Your task to perform on an android device: Open display settings Image 0: 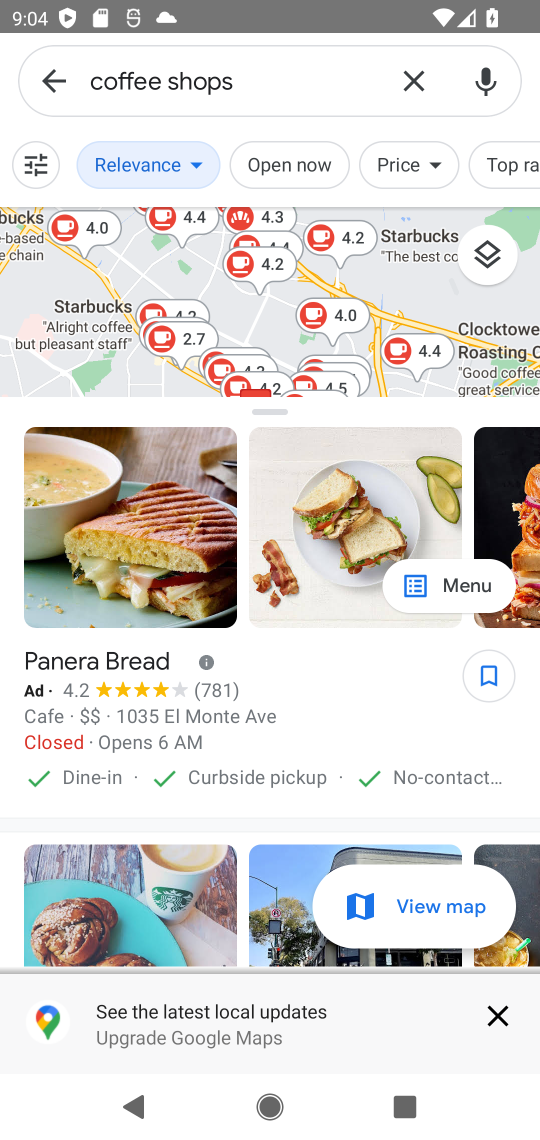
Step 0: press home button
Your task to perform on an android device: Open display settings Image 1: 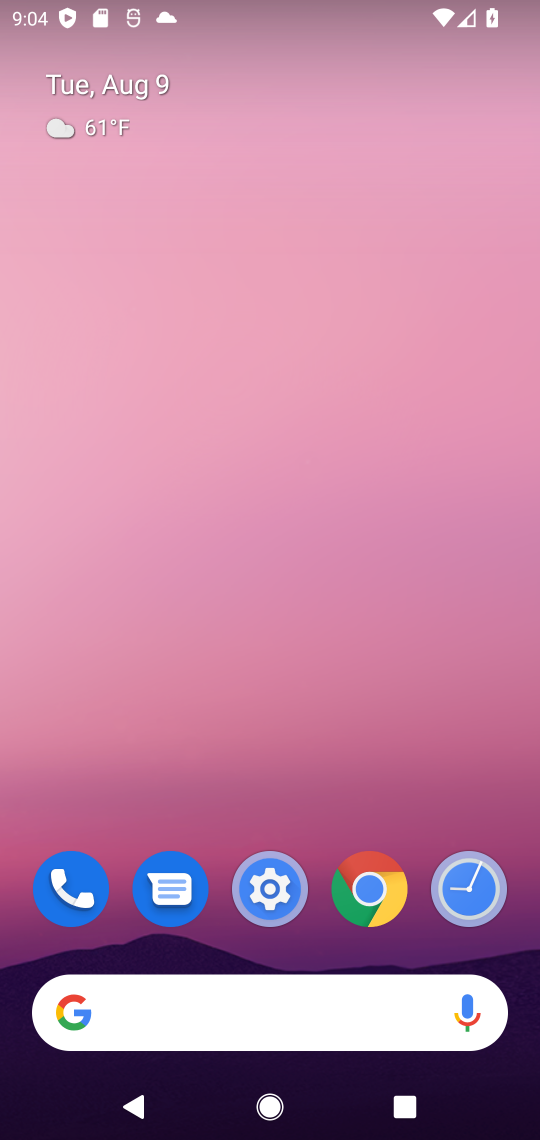
Step 1: drag from (337, 973) to (395, 237)
Your task to perform on an android device: Open display settings Image 2: 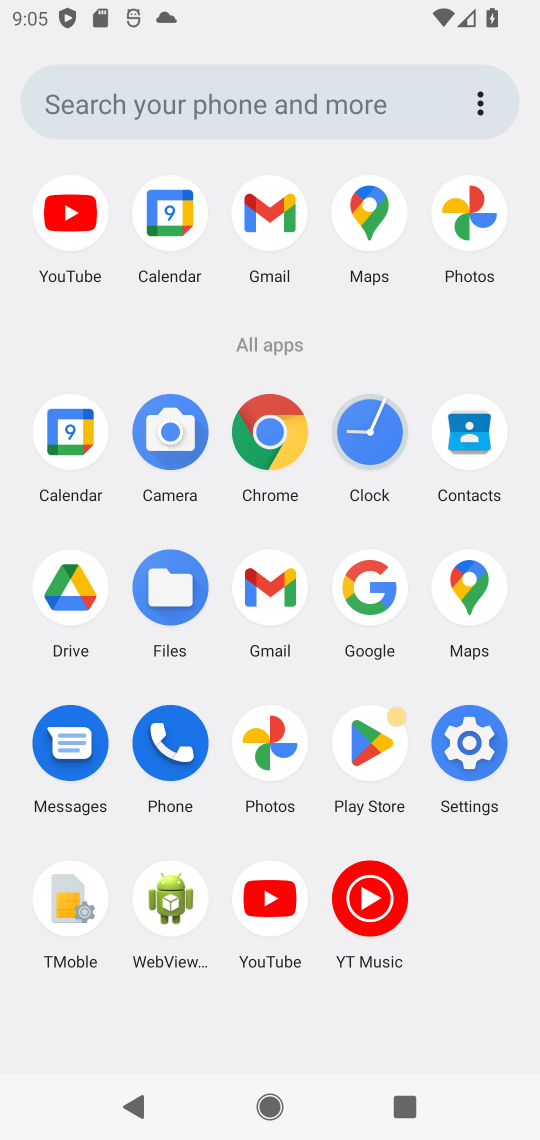
Step 2: click (462, 738)
Your task to perform on an android device: Open display settings Image 3: 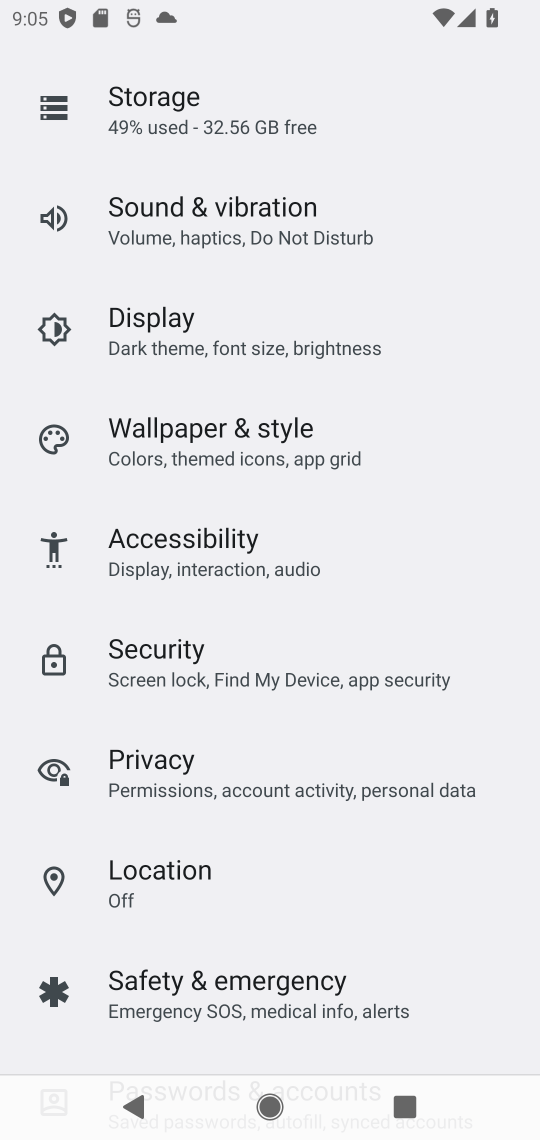
Step 3: click (124, 309)
Your task to perform on an android device: Open display settings Image 4: 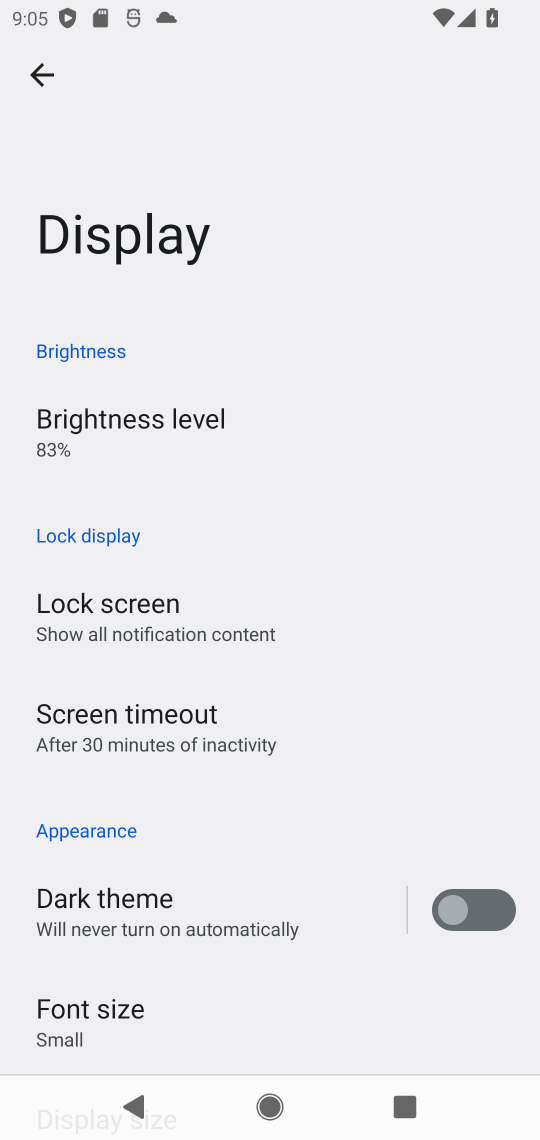
Step 4: task complete